Your task to perform on an android device: toggle priority inbox in the gmail app Image 0: 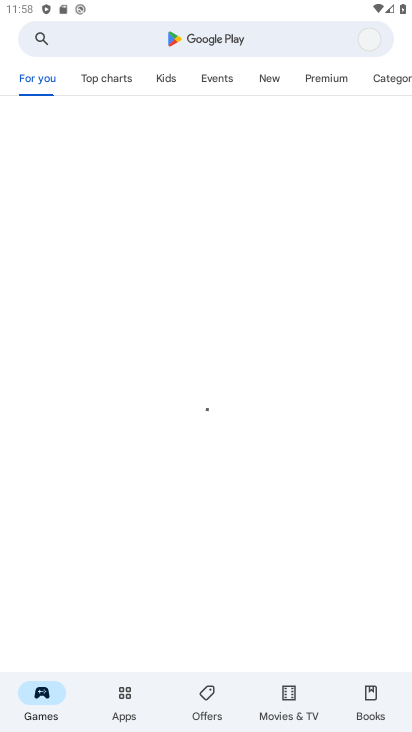
Step 0: press back button
Your task to perform on an android device: toggle priority inbox in the gmail app Image 1: 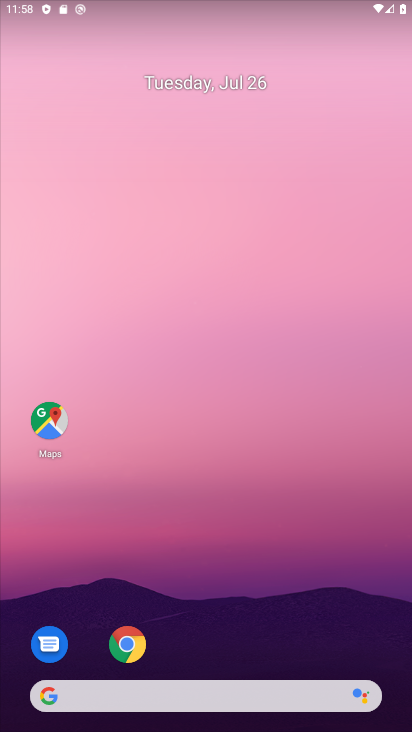
Step 1: drag from (263, 605) to (312, 265)
Your task to perform on an android device: toggle priority inbox in the gmail app Image 2: 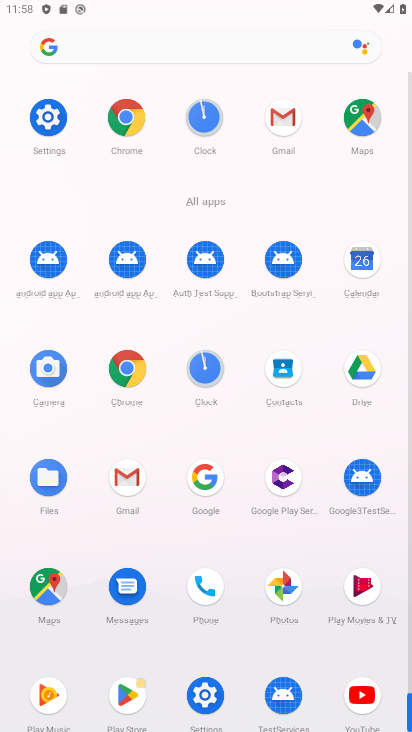
Step 2: drag from (261, 504) to (266, 622)
Your task to perform on an android device: toggle priority inbox in the gmail app Image 3: 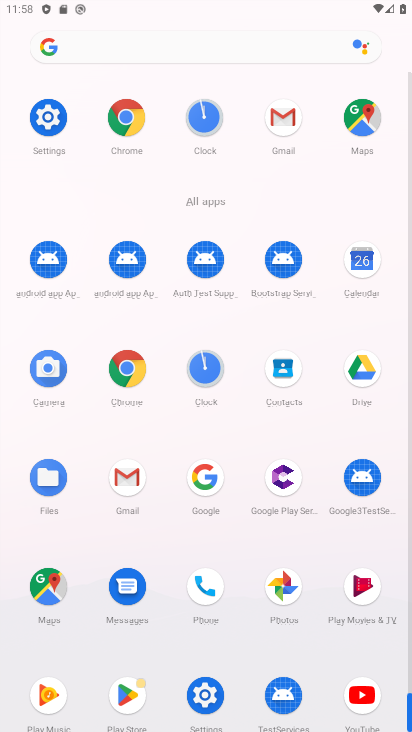
Step 3: click (268, 524)
Your task to perform on an android device: toggle priority inbox in the gmail app Image 4: 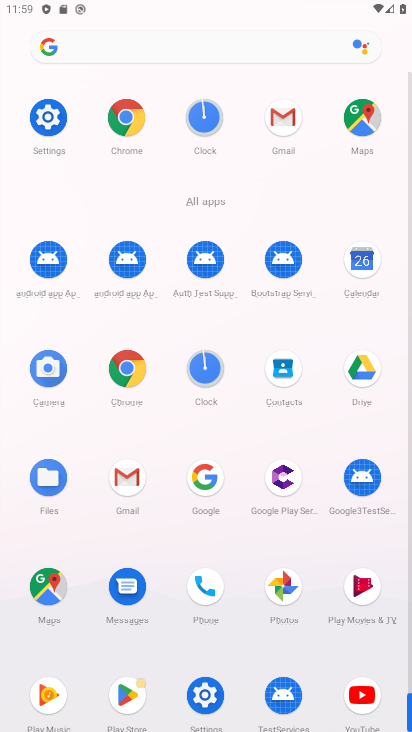
Step 4: click (135, 485)
Your task to perform on an android device: toggle priority inbox in the gmail app Image 5: 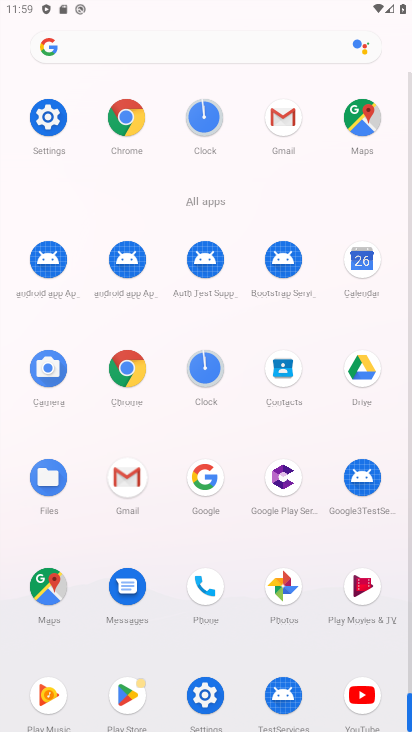
Step 5: click (135, 481)
Your task to perform on an android device: toggle priority inbox in the gmail app Image 6: 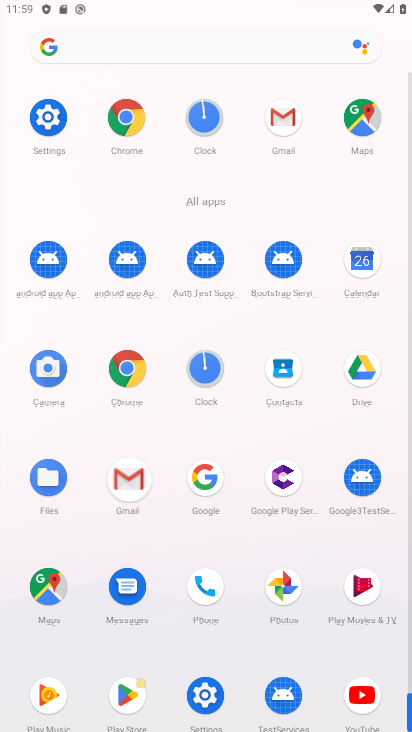
Step 6: click (136, 480)
Your task to perform on an android device: toggle priority inbox in the gmail app Image 7: 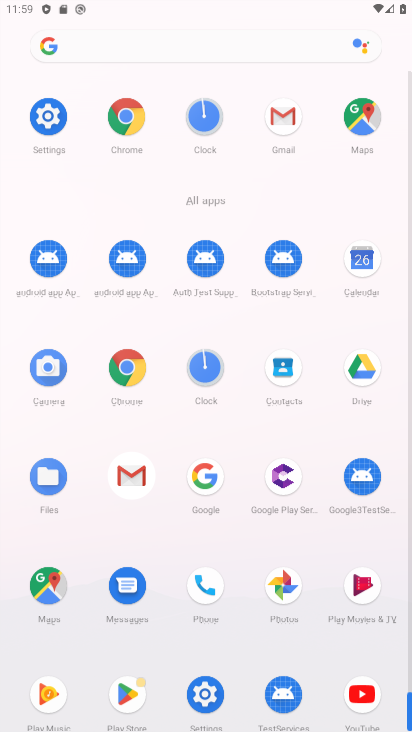
Step 7: click (137, 482)
Your task to perform on an android device: toggle priority inbox in the gmail app Image 8: 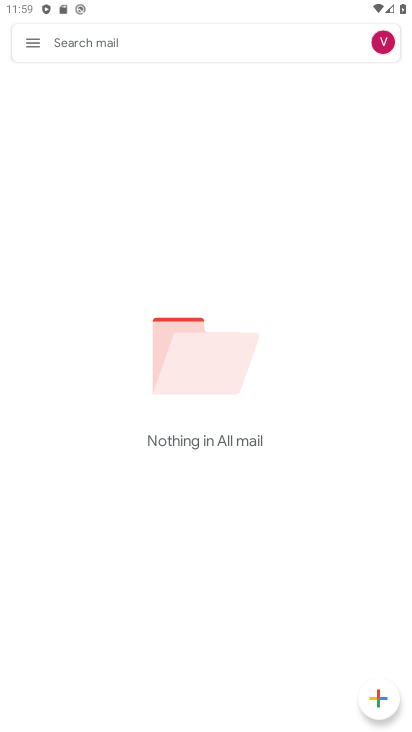
Step 8: click (387, 41)
Your task to perform on an android device: toggle priority inbox in the gmail app Image 9: 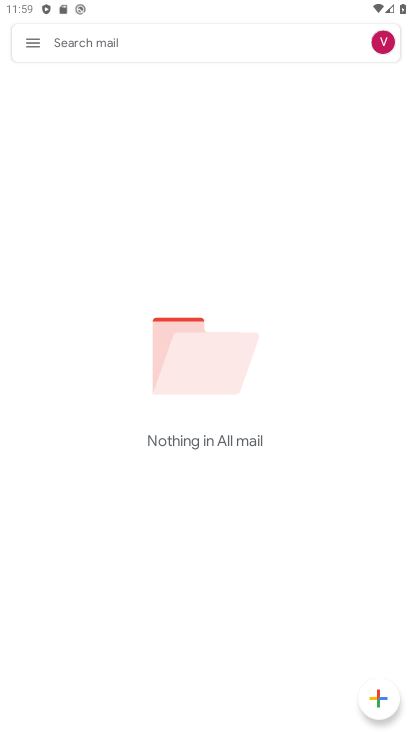
Step 9: click (390, 36)
Your task to perform on an android device: toggle priority inbox in the gmail app Image 10: 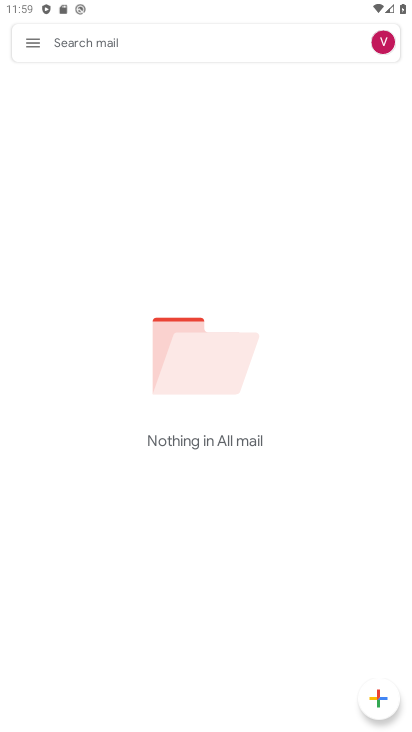
Step 10: click (389, 38)
Your task to perform on an android device: toggle priority inbox in the gmail app Image 11: 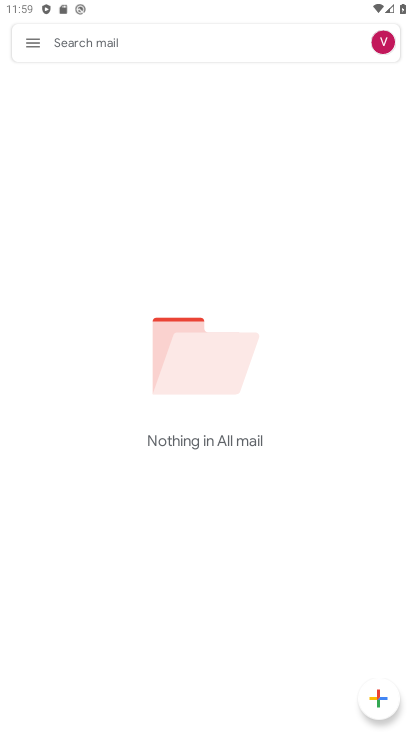
Step 11: click (388, 38)
Your task to perform on an android device: toggle priority inbox in the gmail app Image 12: 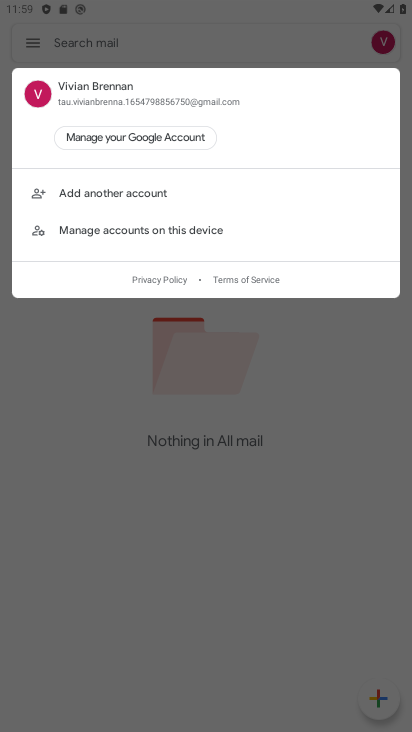
Step 12: click (116, 373)
Your task to perform on an android device: toggle priority inbox in the gmail app Image 13: 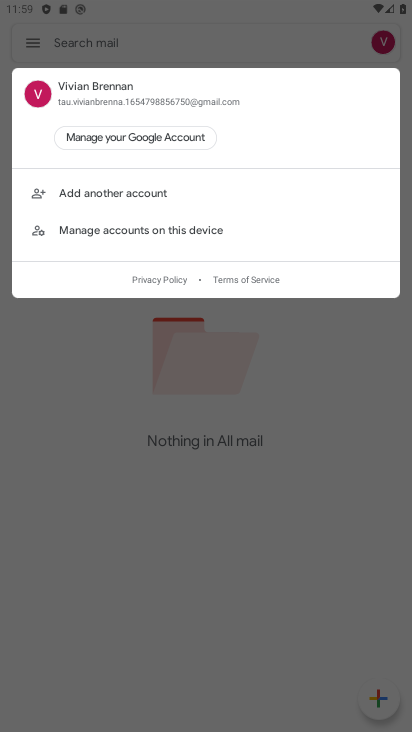
Step 13: click (115, 372)
Your task to perform on an android device: toggle priority inbox in the gmail app Image 14: 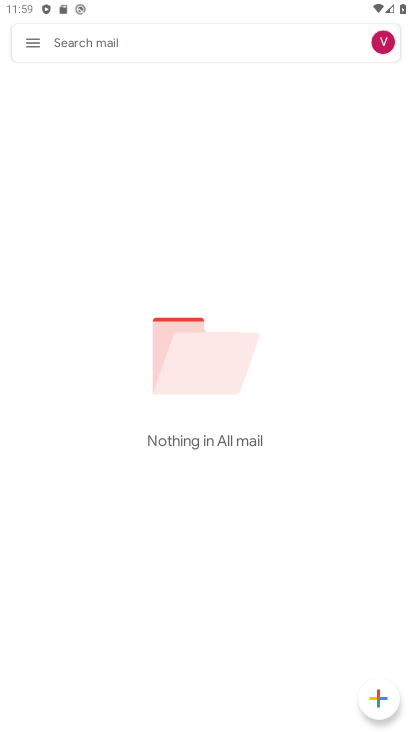
Step 14: click (33, 38)
Your task to perform on an android device: toggle priority inbox in the gmail app Image 15: 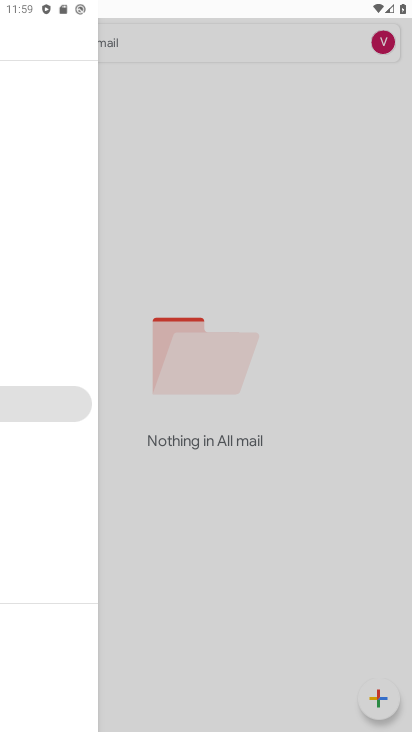
Step 15: click (34, 36)
Your task to perform on an android device: toggle priority inbox in the gmail app Image 16: 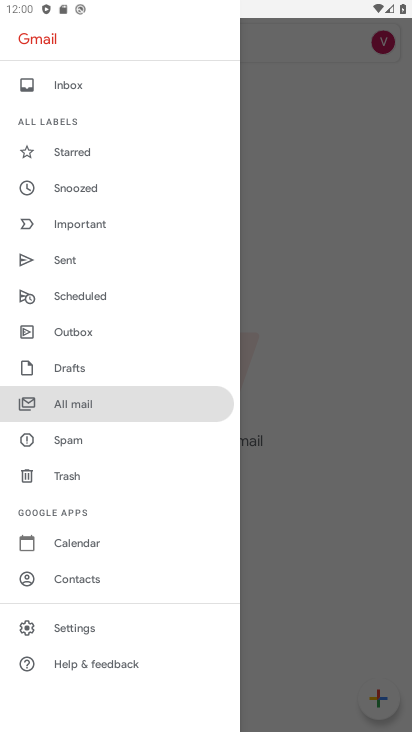
Step 16: click (83, 623)
Your task to perform on an android device: toggle priority inbox in the gmail app Image 17: 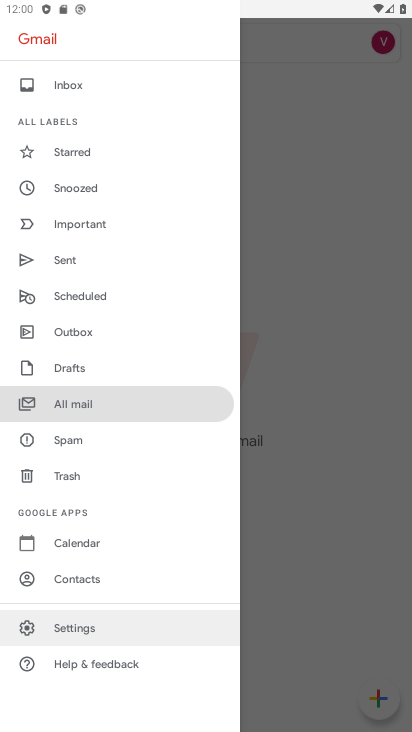
Step 17: click (83, 623)
Your task to perform on an android device: toggle priority inbox in the gmail app Image 18: 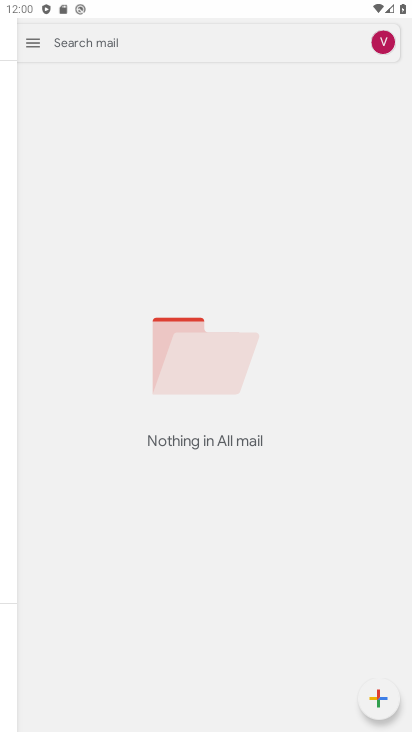
Step 18: click (83, 623)
Your task to perform on an android device: toggle priority inbox in the gmail app Image 19: 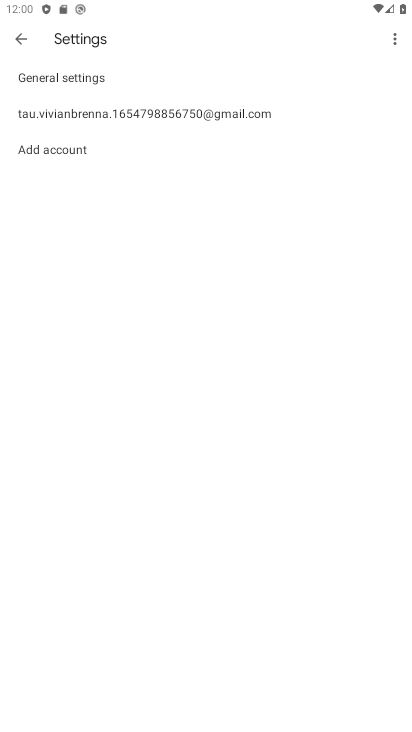
Step 19: click (118, 115)
Your task to perform on an android device: toggle priority inbox in the gmail app Image 20: 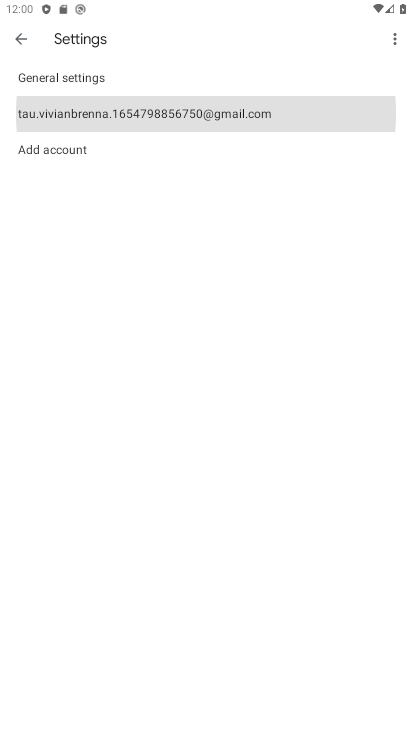
Step 20: click (121, 112)
Your task to perform on an android device: toggle priority inbox in the gmail app Image 21: 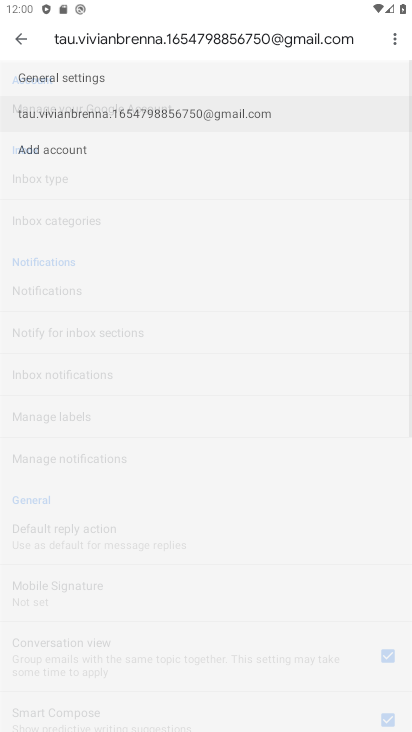
Step 21: click (124, 109)
Your task to perform on an android device: toggle priority inbox in the gmail app Image 22: 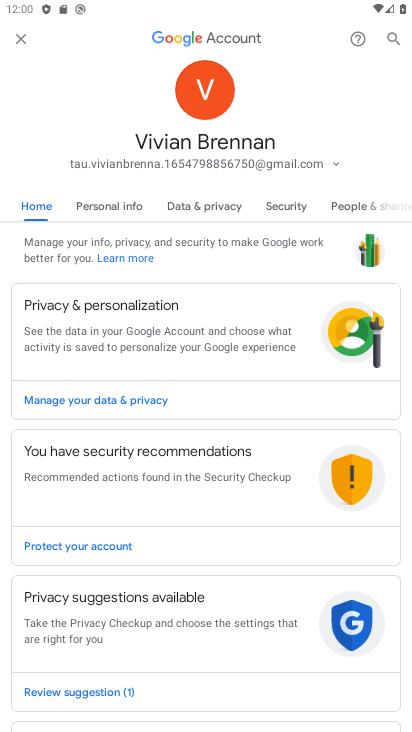
Step 22: task complete